Your task to perform on an android device: turn off sleep mode Image 0: 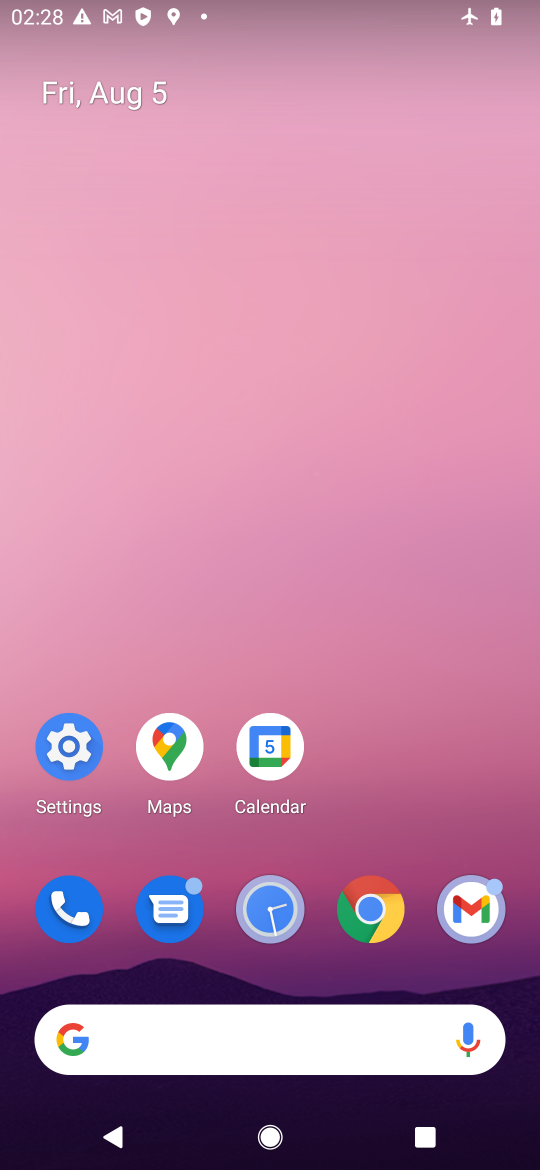
Step 0: click (66, 752)
Your task to perform on an android device: turn off sleep mode Image 1: 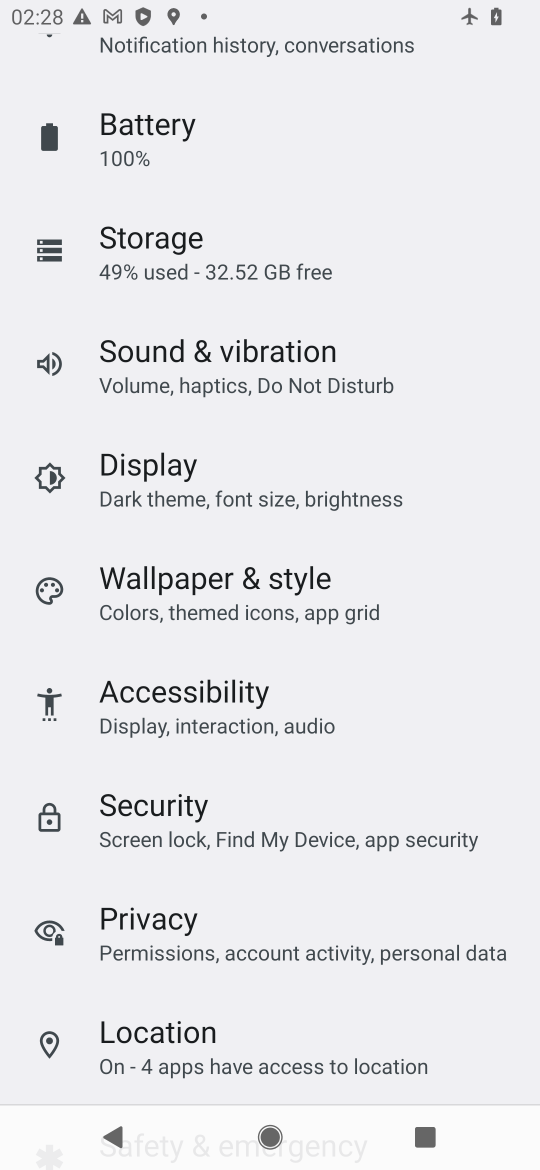
Step 1: click (141, 464)
Your task to perform on an android device: turn off sleep mode Image 2: 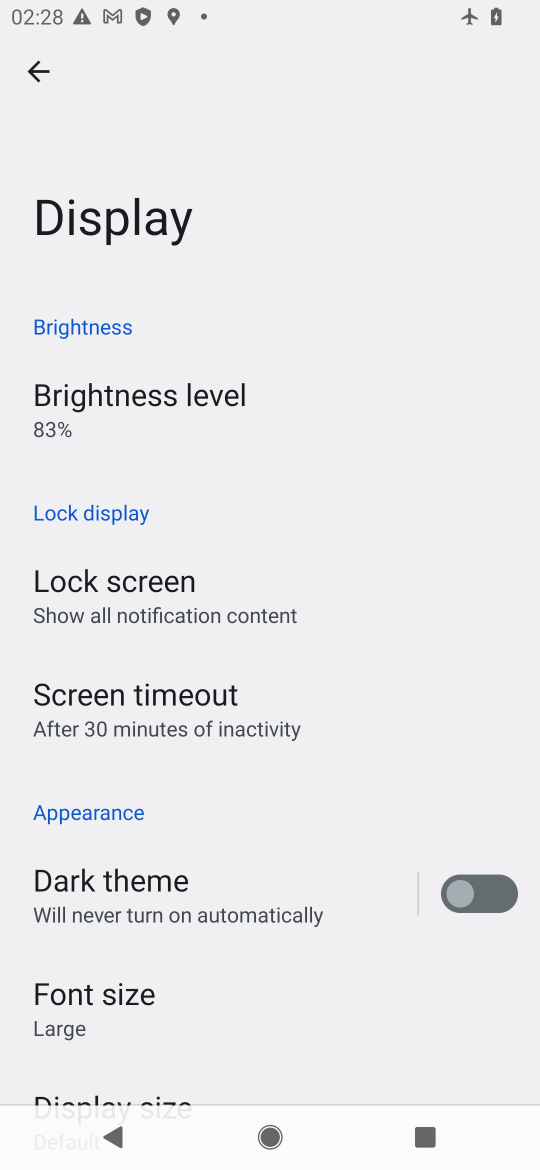
Step 2: task complete